Your task to perform on an android device: turn on priority inbox in the gmail app Image 0: 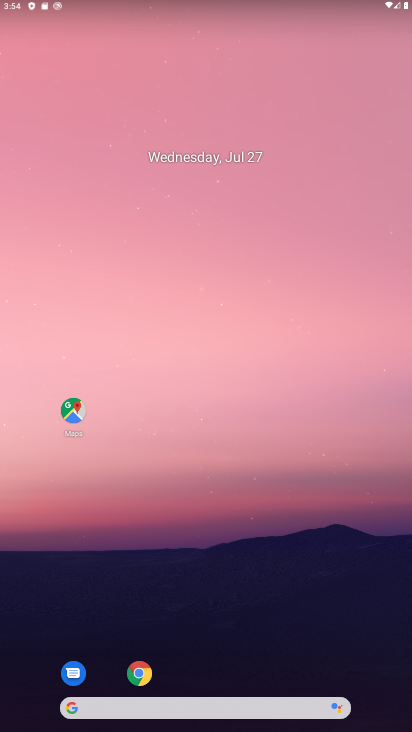
Step 0: press home button
Your task to perform on an android device: turn on priority inbox in the gmail app Image 1: 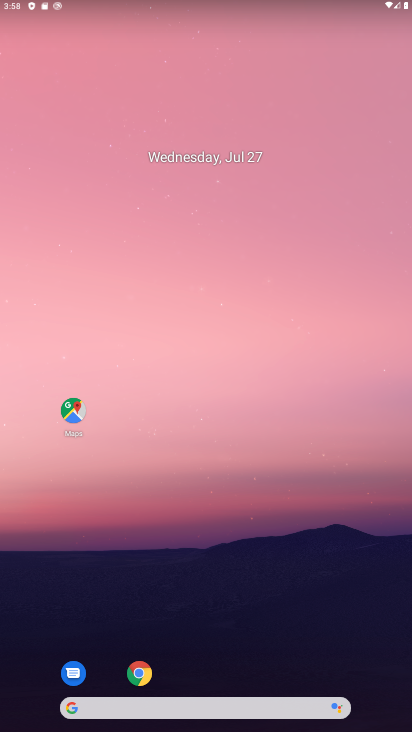
Step 1: drag from (238, 616) to (122, 66)
Your task to perform on an android device: turn on priority inbox in the gmail app Image 2: 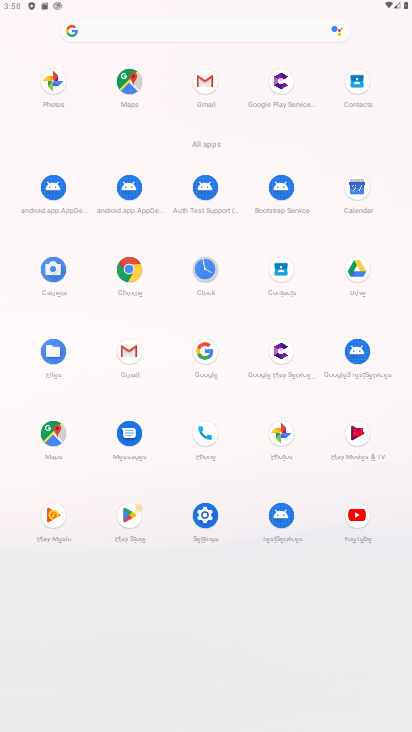
Step 2: click (117, 348)
Your task to perform on an android device: turn on priority inbox in the gmail app Image 3: 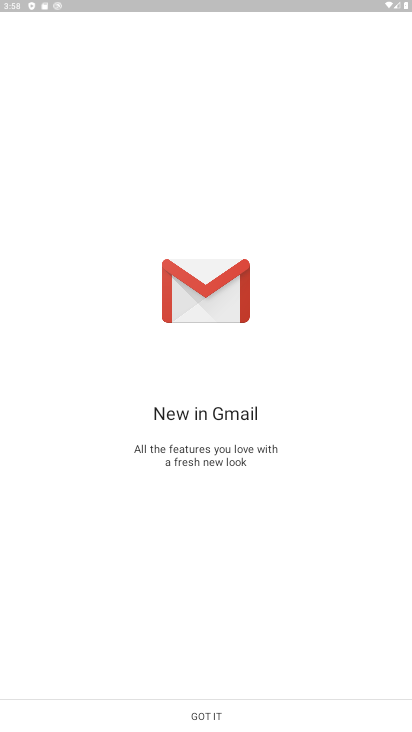
Step 3: click (231, 709)
Your task to perform on an android device: turn on priority inbox in the gmail app Image 4: 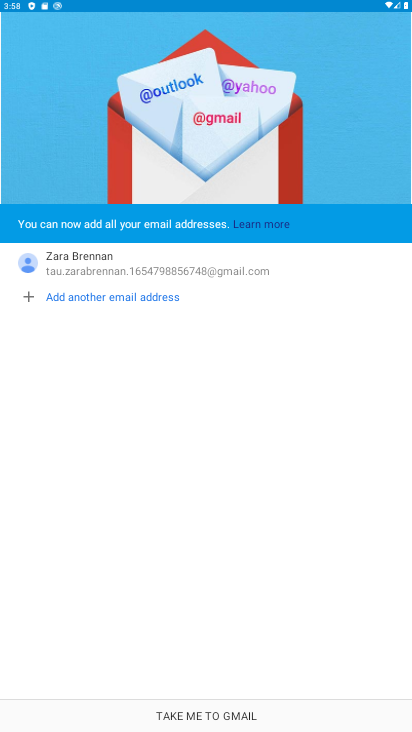
Step 4: click (231, 709)
Your task to perform on an android device: turn on priority inbox in the gmail app Image 5: 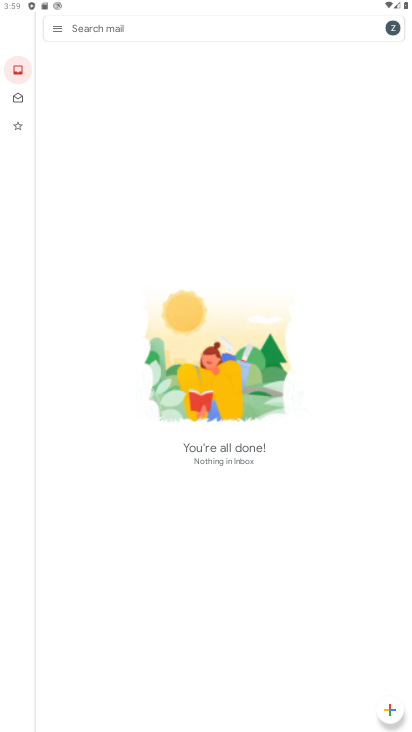
Step 5: drag from (180, 559) to (168, 121)
Your task to perform on an android device: turn on priority inbox in the gmail app Image 6: 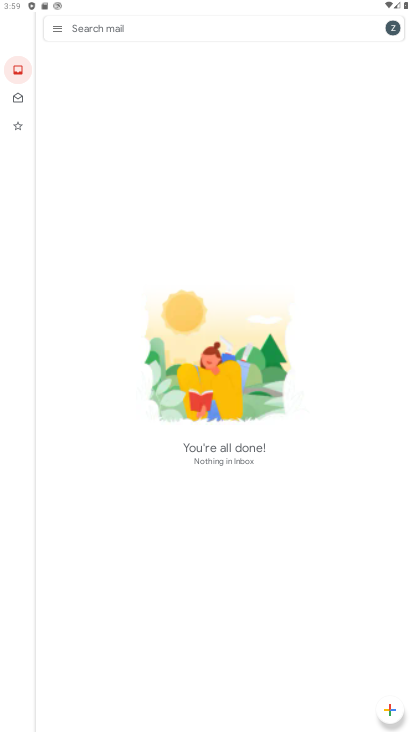
Step 6: press home button
Your task to perform on an android device: turn on priority inbox in the gmail app Image 7: 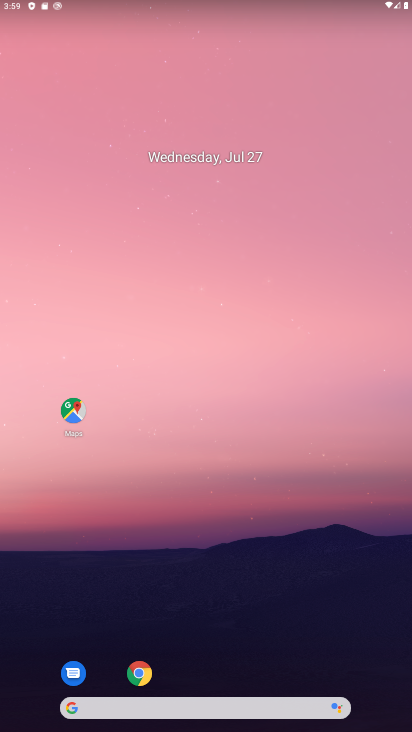
Step 7: drag from (271, 646) to (271, 223)
Your task to perform on an android device: turn on priority inbox in the gmail app Image 8: 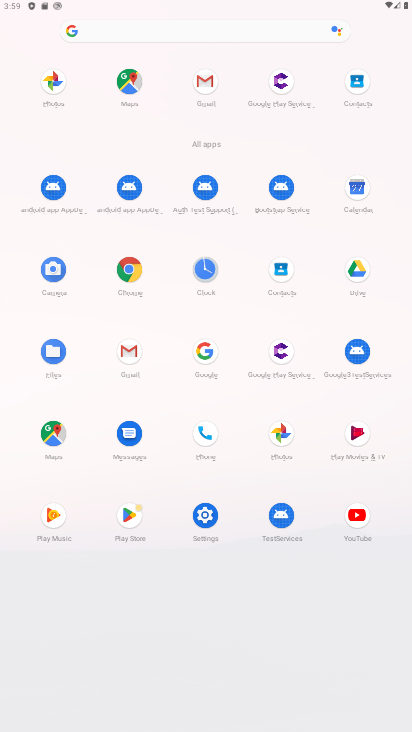
Step 8: click (137, 351)
Your task to perform on an android device: turn on priority inbox in the gmail app Image 9: 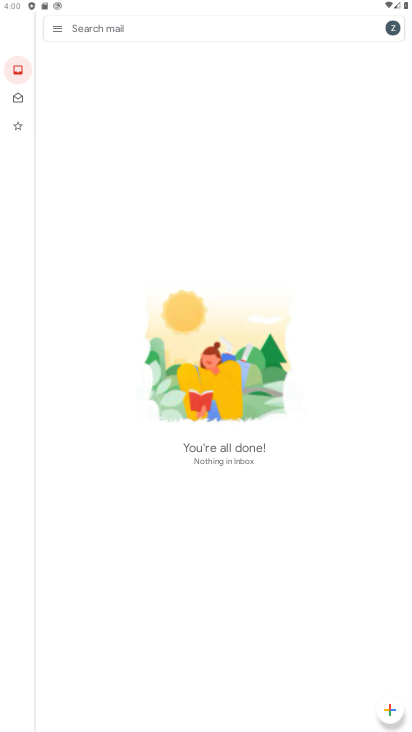
Step 9: click (58, 28)
Your task to perform on an android device: turn on priority inbox in the gmail app Image 10: 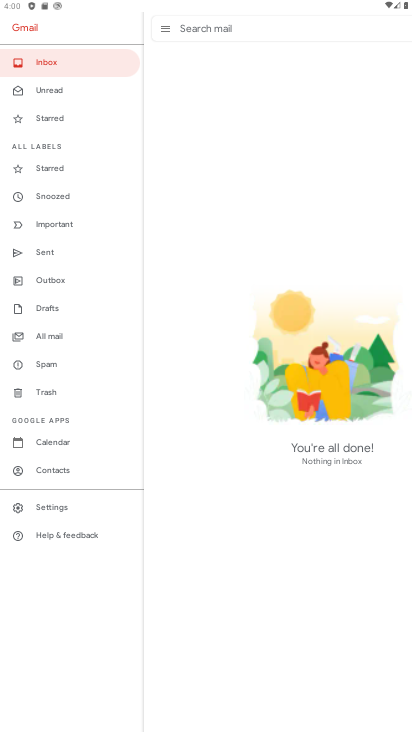
Step 10: click (60, 507)
Your task to perform on an android device: turn on priority inbox in the gmail app Image 11: 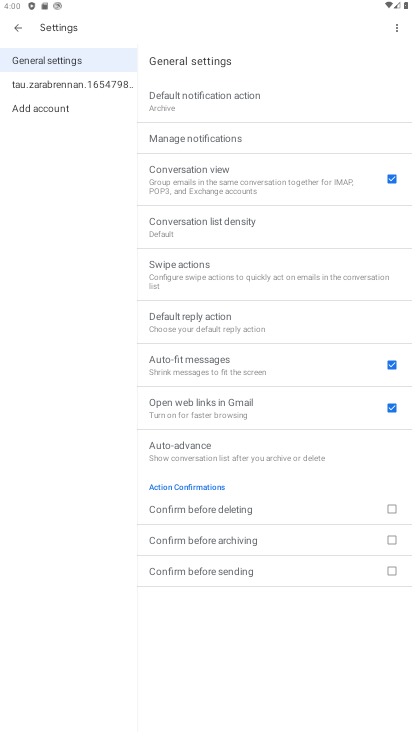
Step 11: click (60, 83)
Your task to perform on an android device: turn on priority inbox in the gmail app Image 12: 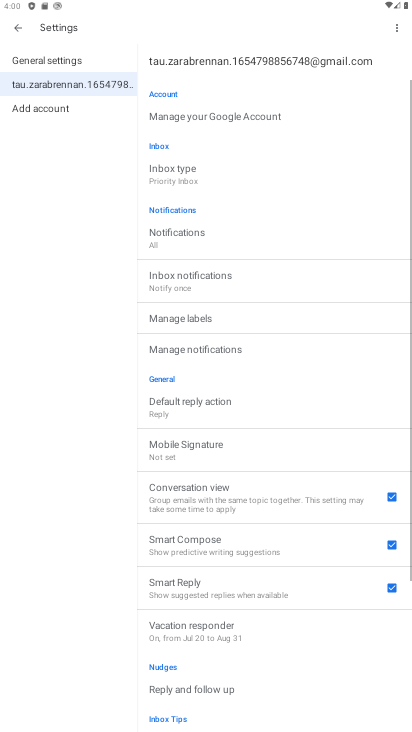
Step 12: click (173, 180)
Your task to perform on an android device: turn on priority inbox in the gmail app Image 13: 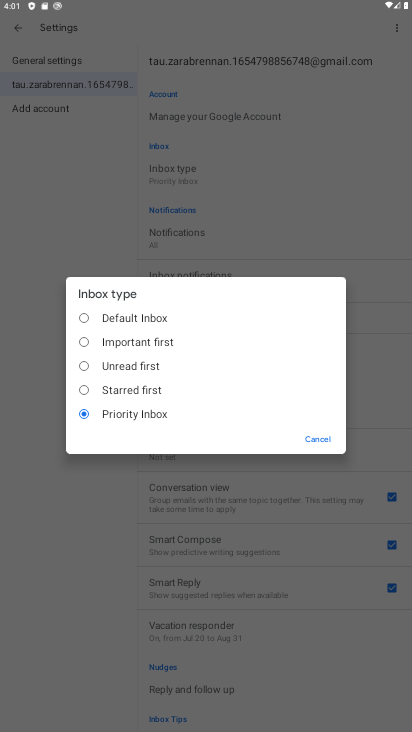
Step 13: task complete